Your task to perform on an android device: open sync settings in chrome Image 0: 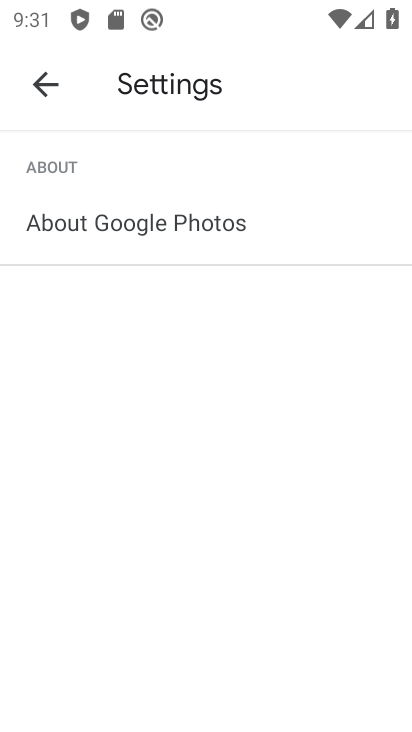
Step 0: press home button
Your task to perform on an android device: open sync settings in chrome Image 1: 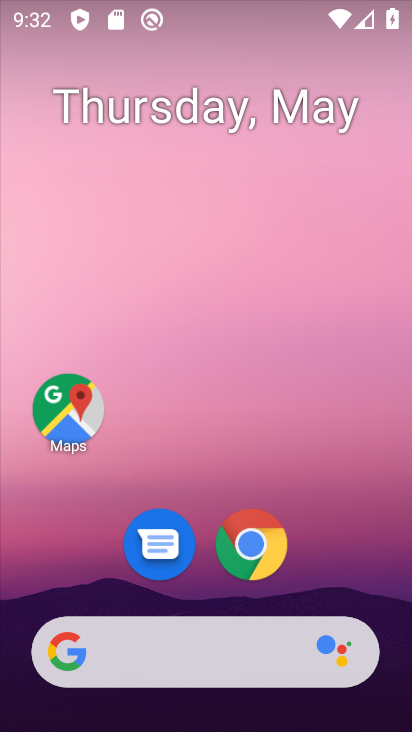
Step 1: drag from (204, 505) to (303, 166)
Your task to perform on an android device: open sync settings in chrome Image 2: 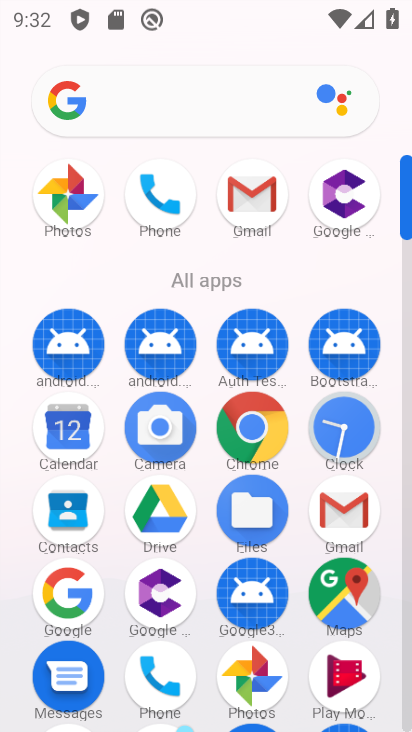
Step 2: click (249, 423)
Your task to perform on an android device: open sync settings in chrome Image 3: 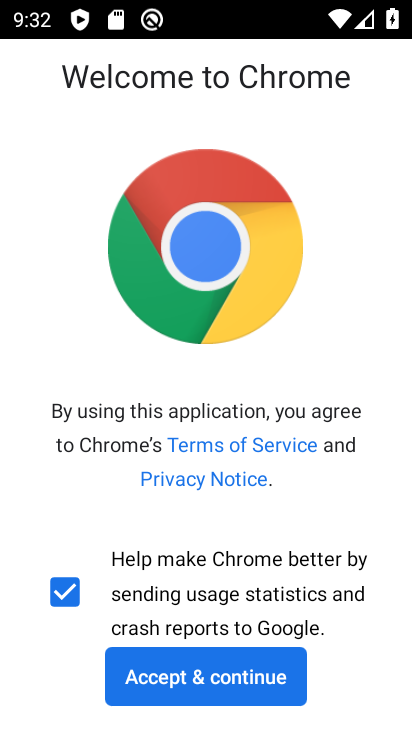
Step 3: click (202, 676)
Your task to perform on an android device: open sync settings in chrome Image 4: 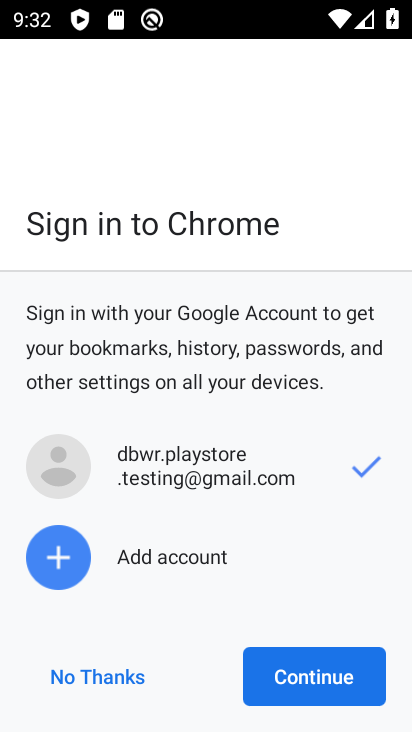
Step 4: click (316, 673)
Your task to perform on an android device: open sync settings in chrome Image 5: 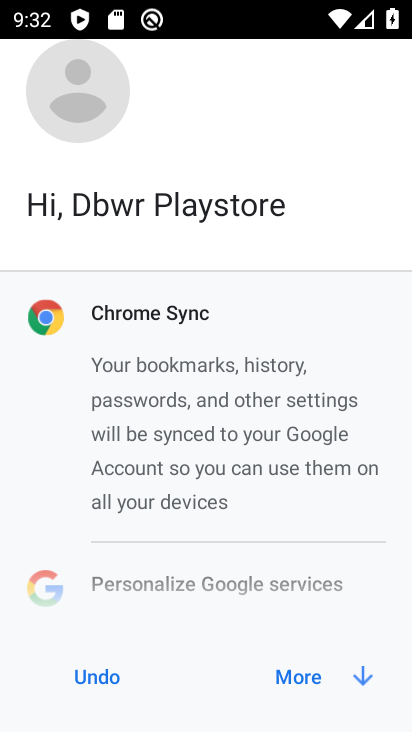
Step 5: click (333, 669)
Your task to perform on an android device: open sync settings in chrome Image 6: 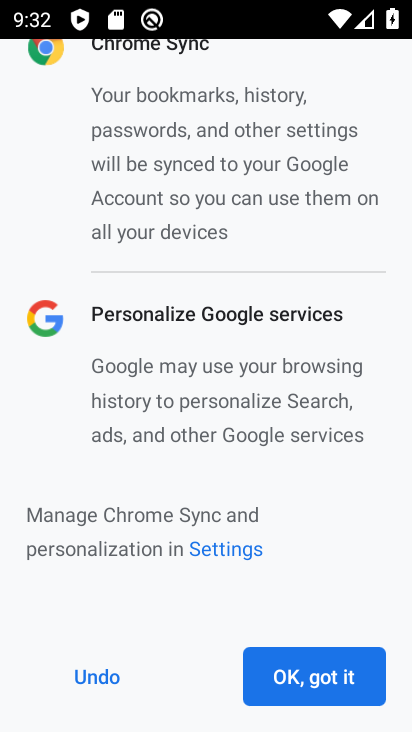
Step 6: click (301, 692)
Your task to perform on an android device: open sync settings in chrome Image 7: 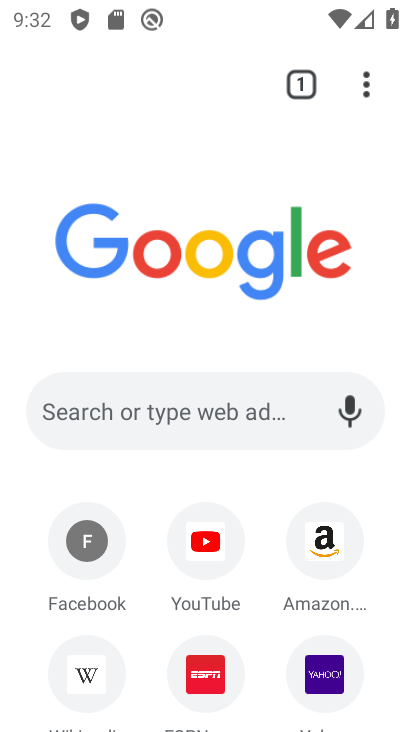
Step 7: click (366, 85)
Your task to perform on an android device: open sync settings in chrome Image 8: 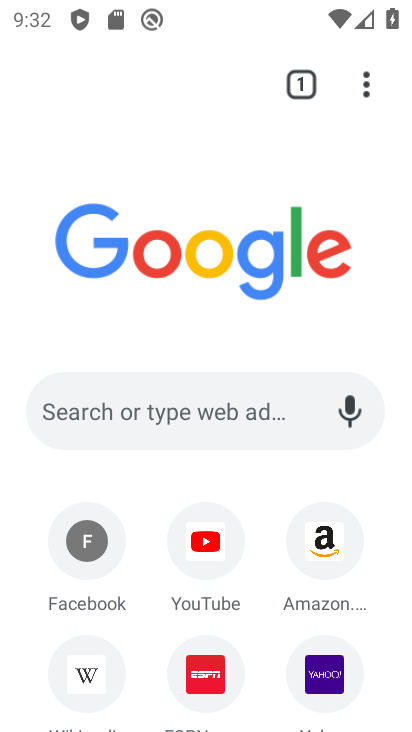
Step 8: click (366, 88)
Your task to perform on an android device: open sync settings in chrome Image 9: 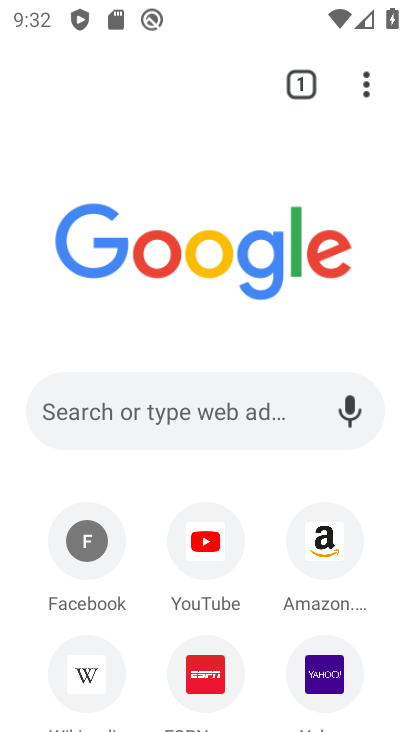
Step 9: click (360, 91)
Your task to perform on an android device: open sync settings in chrome Image 10: 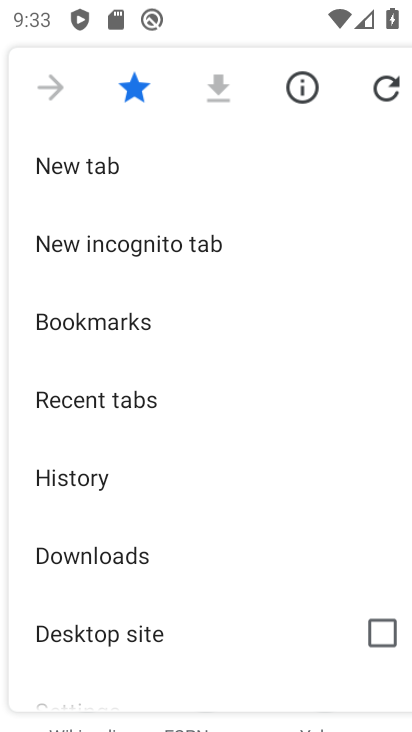
Step 10: drag from (124, 450) to (212, 42)
Your task to perform on an android device: open sync settings in chrome Image 11: 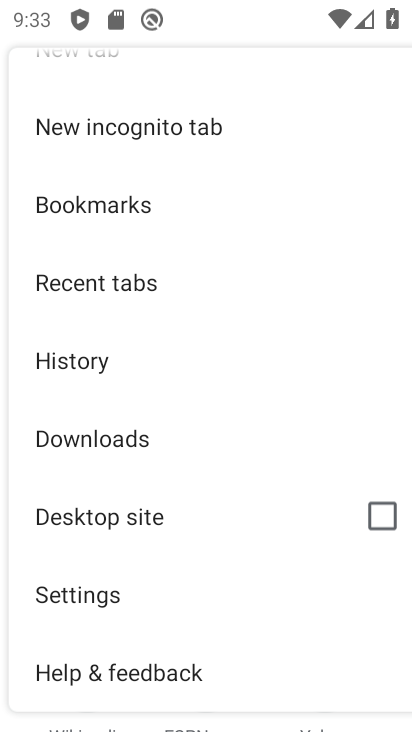
Step 11: click (97, 589)
Your task to perform on an android device: open sync settings in chrome Image 12: 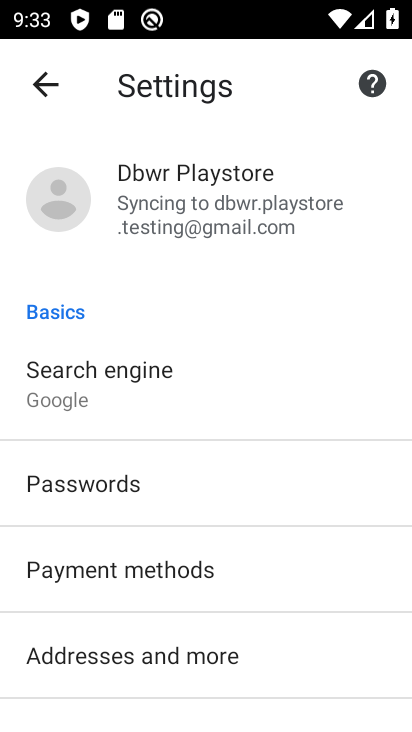
Step 12: click (127, 199)
Your task to perform on an android device: open sync settings in chrome Image 13: 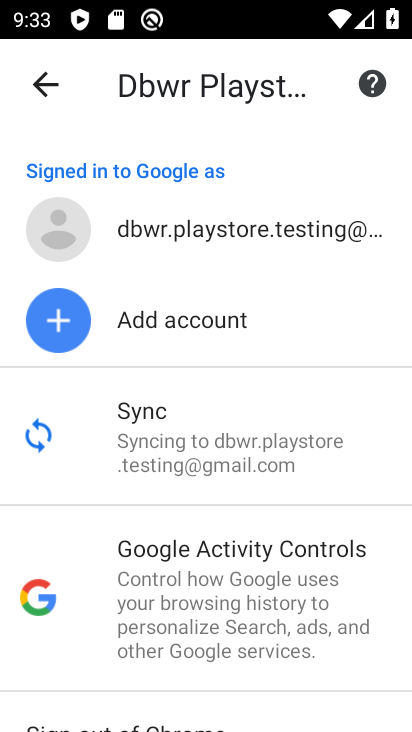
Step 13: click (253, 428)
Your task to perform on an android device: open sync settings in chrome Image 14: 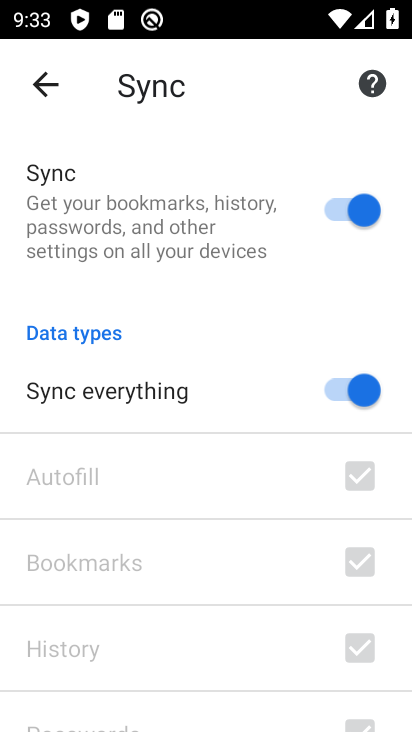
Step 14: task complete